Your task to perform on an android device: check data usage Image 0: 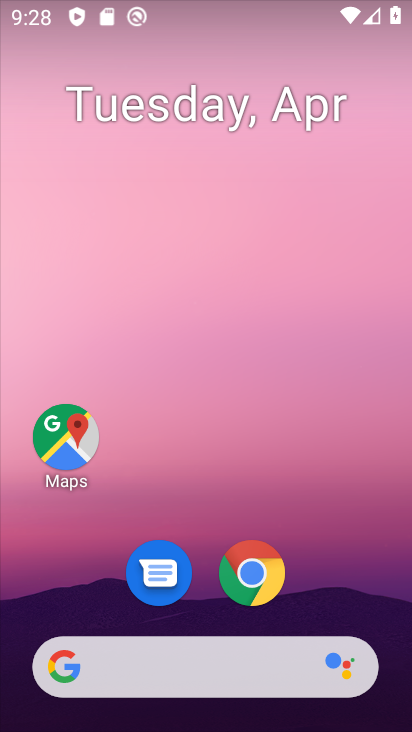
Step 0: drag from (359, 572) to (381, 16)
Your task to perform on an android device: check data usage Image 1: 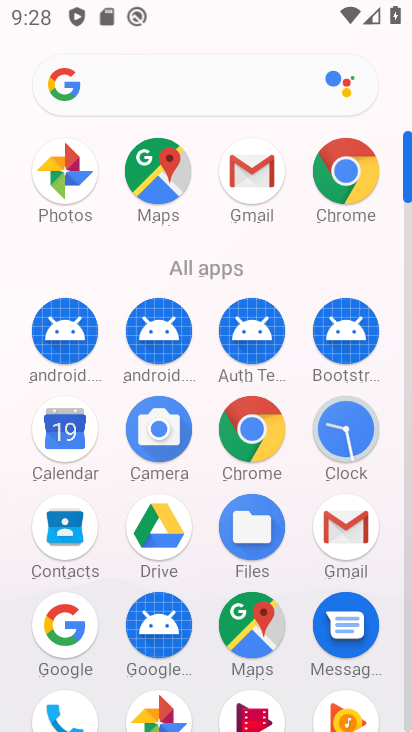
Step 1: click (407, 535)
Your task to perform on an android device: check data usage Image 2: 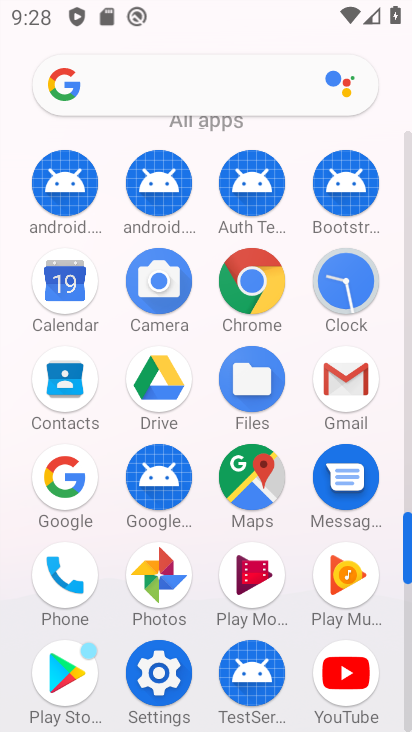
Step 2: click (158, 680)
Your task to perform on an android device: check data usage Image 3: 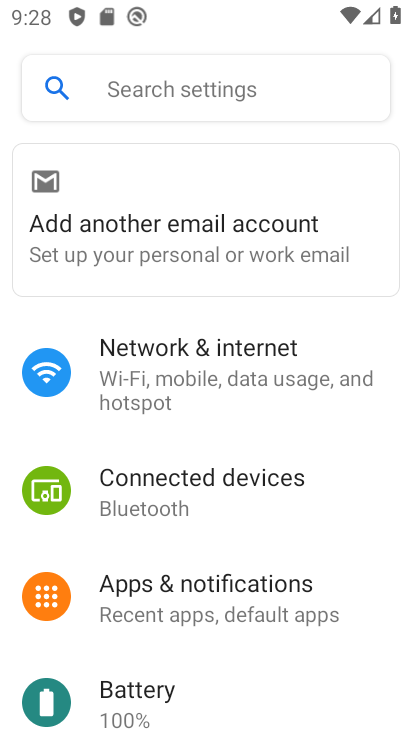
Step 3: click (173, 371)
Your task to perform on an android device: check data usage Image 4: 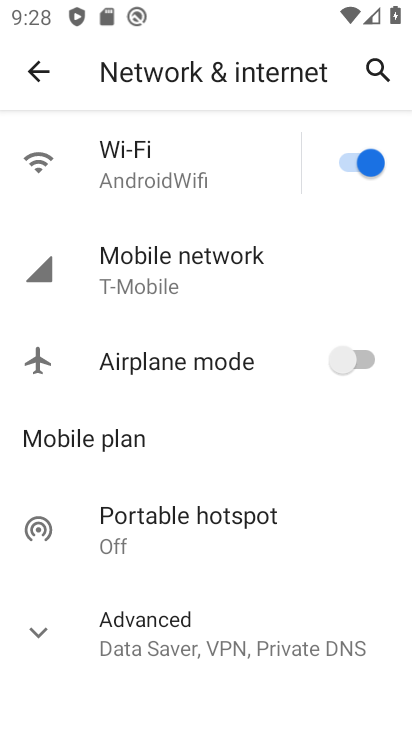
Step 4: click (44, 645)
Your task to perform on an android device: check data usage Image 5: 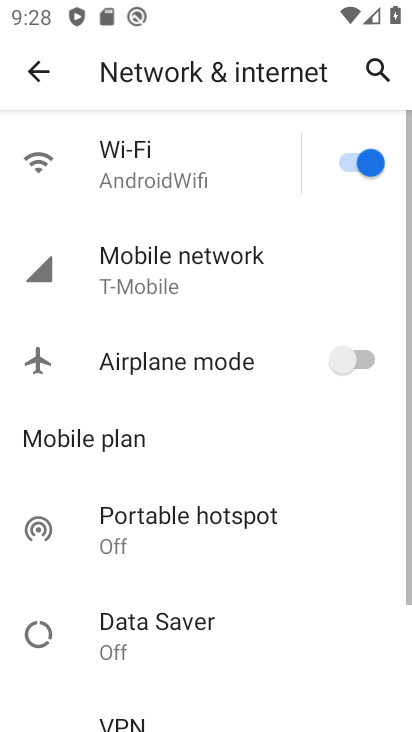
Step 5: drag from (171, 644) to (178, 338)
Your task to perform on an android device: check data usage Image 6: 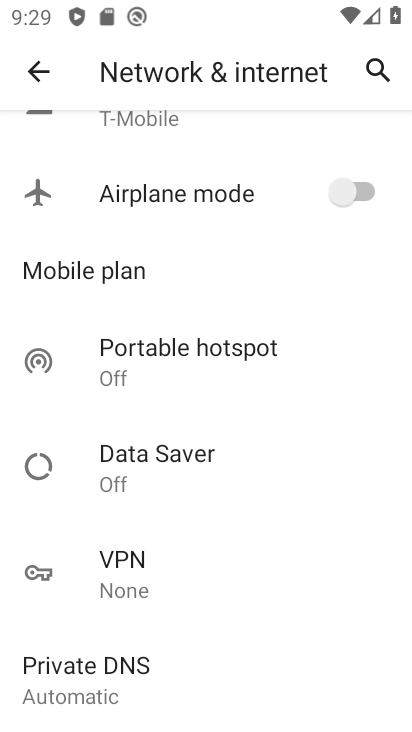
Step 6: drag from (154, 348) to (173, 571)
Your task to perform on an android device: check data usage Image 7: 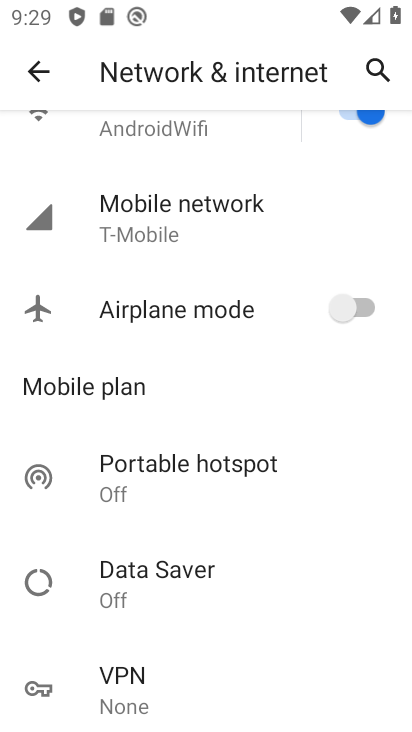
Step 7: click (135, 229)
Your task to perform on an android device: check data usage Image 8: 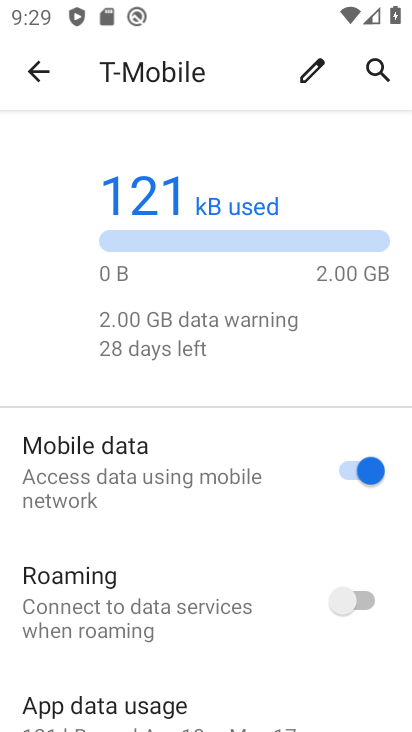
Step 8: drag from (232, 529) to (244, 226)
Your task to perform on an android device: check data usage Image 9: 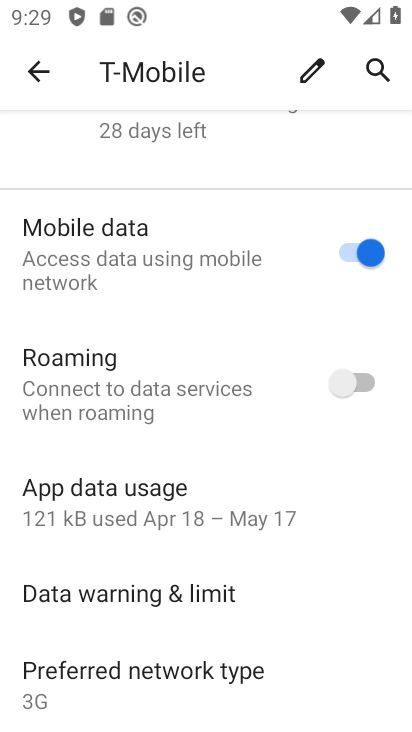
Step 9: click (122, 499)
Your task to perform on an android device: check data usage Image 10: 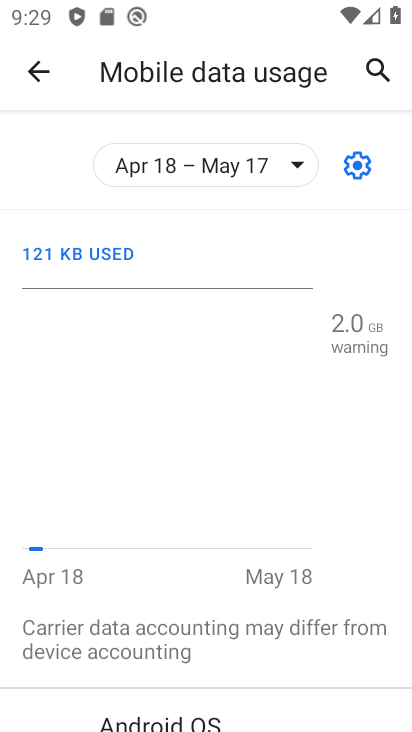
Step 10: task complete